Your task to perform on an android device: Go to privacy settings Image 0: 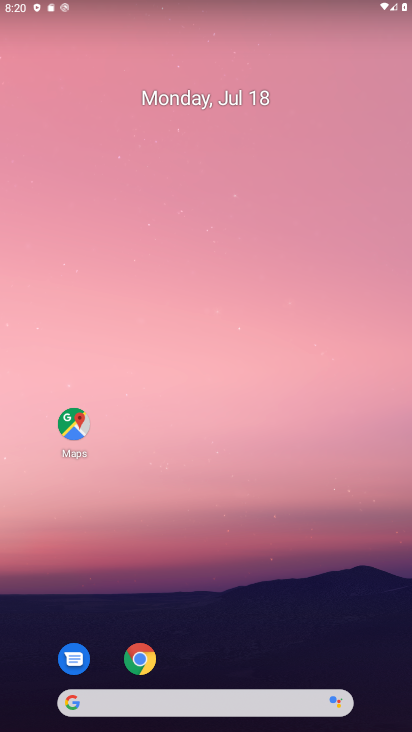
Step 0: drag from (231, 715) to (236, 287)
Your task to perform on an android device: Go to privacy settings Image 1: 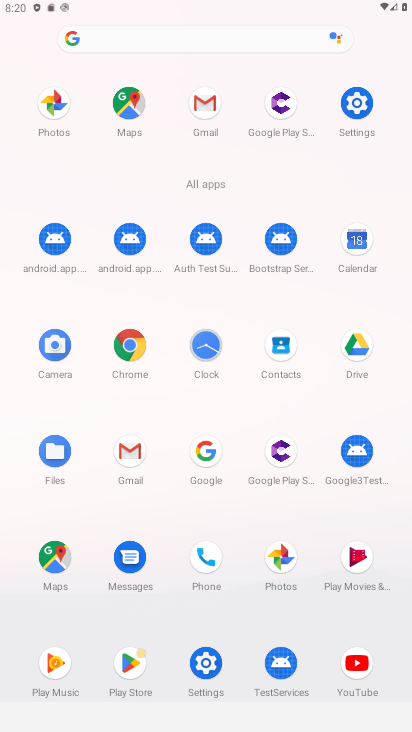
Step 1: click (356, 110)
Your task to perform on an android device: Go to privacy settings Image 2: 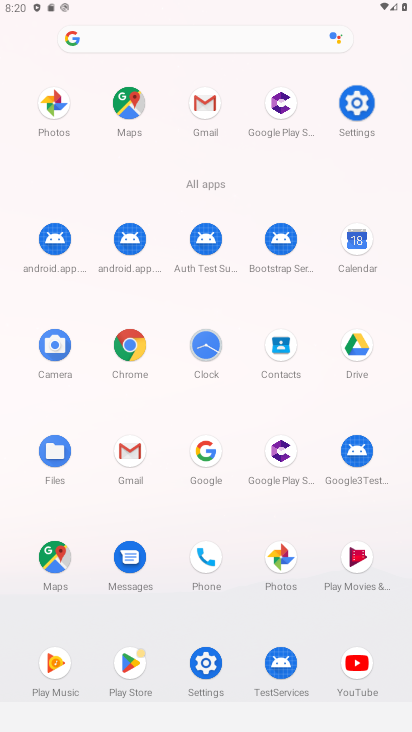
Step 2: click (355, 110)
Your task to perform on an android device: Go to privacy settings Image 3: 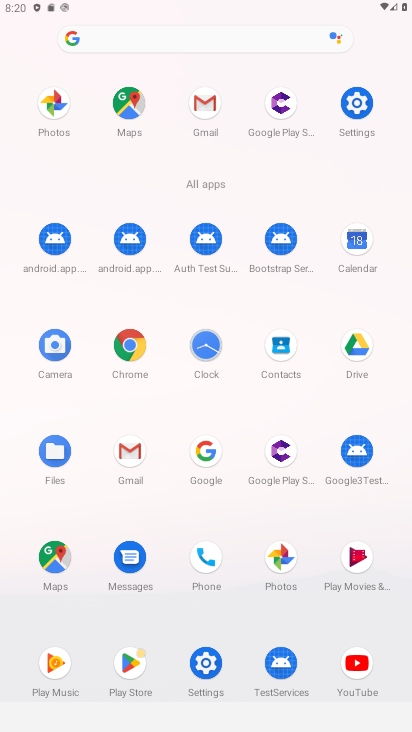
Step 3: click (355, 110)
Your task to perform on an android device: Go to privacy settings Image 4: 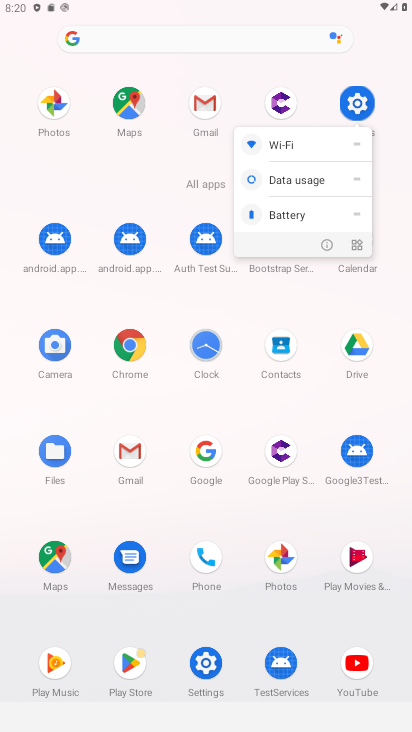
Step 4: click (357, 107)
Your task to perform on an android device: Go to privacy settings Image 5: 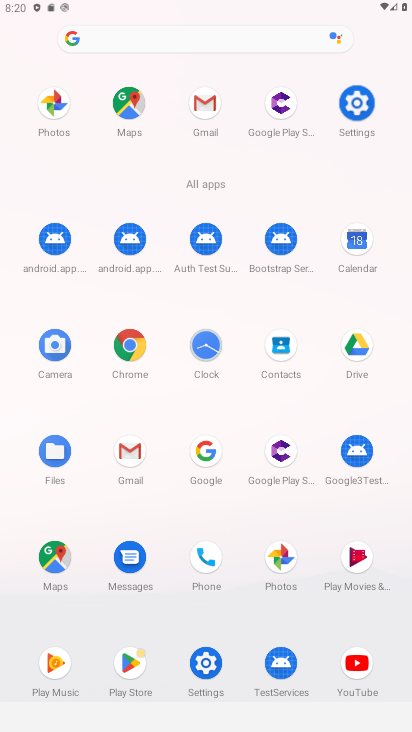
Step 5: click (360, 102)
Your task to perform on an android device: Go to privacy settings Image 6: 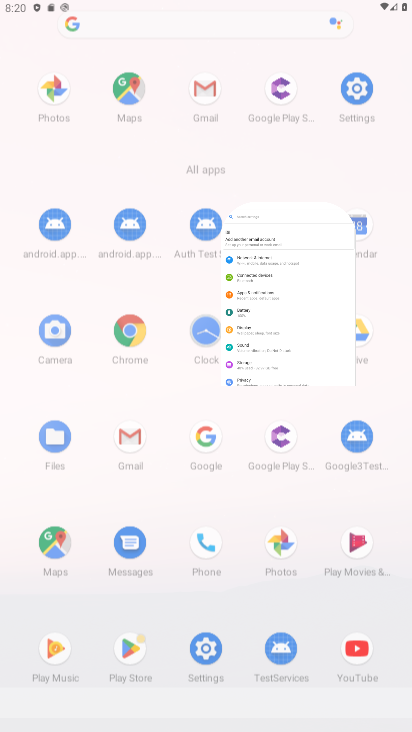
Step 6: click (360, 102)
Your task to perform on an android device: Go to privacy settings Image 7: 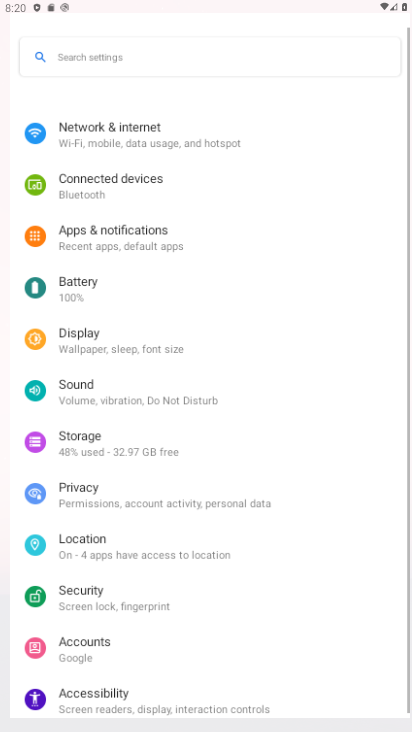
Step 7: click (360, 102)
Your task to perform on an android device: Go to privacy settings Image 8: 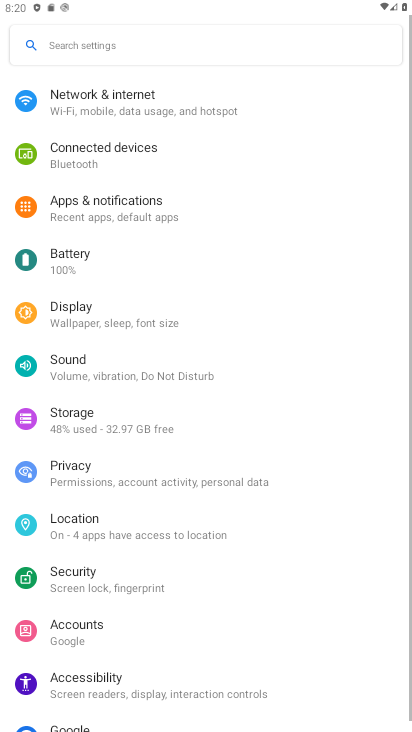
Step 8: click (360, 102)
Your task to perform on an android device: Go to privacy settings Image 9: 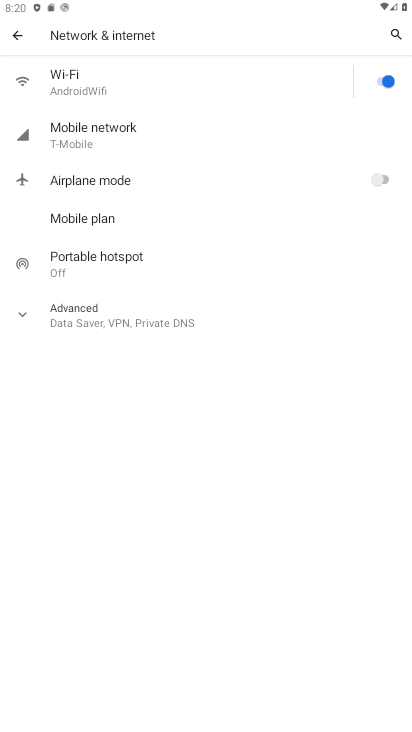
Step 9: click (15, 45)
Your task to perform on an android device: Go to privacy settings Image 10: 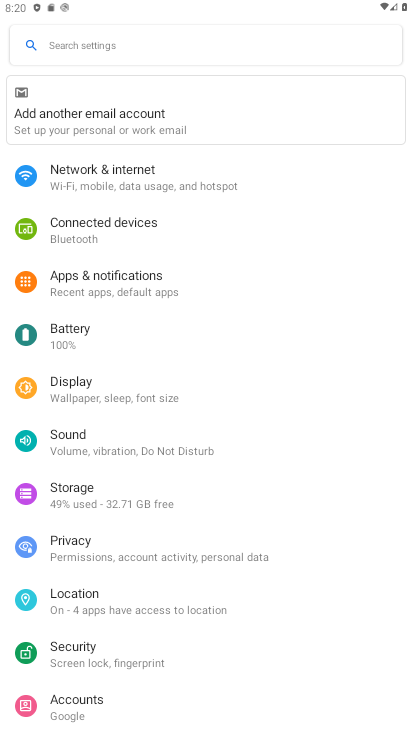
Step 10: click (70, 540)
Your task to perform on an android device: Go to privacy settings Image 11: 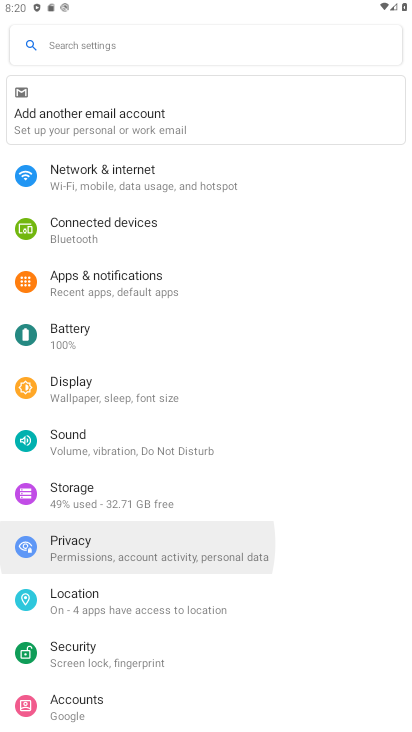
Step 11: click (70, 540)
Your task to perform on an android device: Go to privacy settings Image 12: 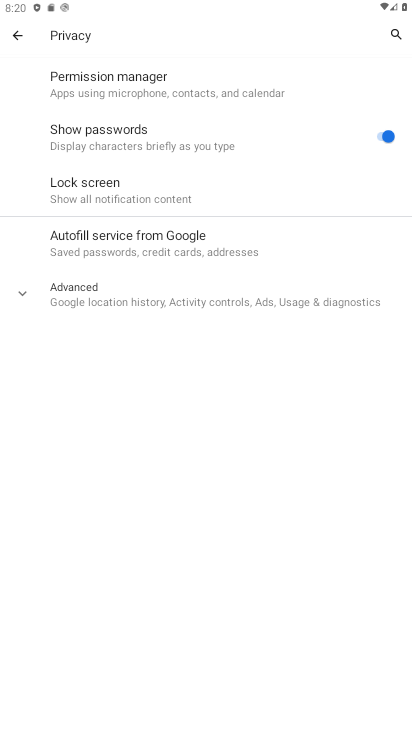
Step 12: task complete